Your task to perform on an android device: Open Chrome and go to settings Image 0: 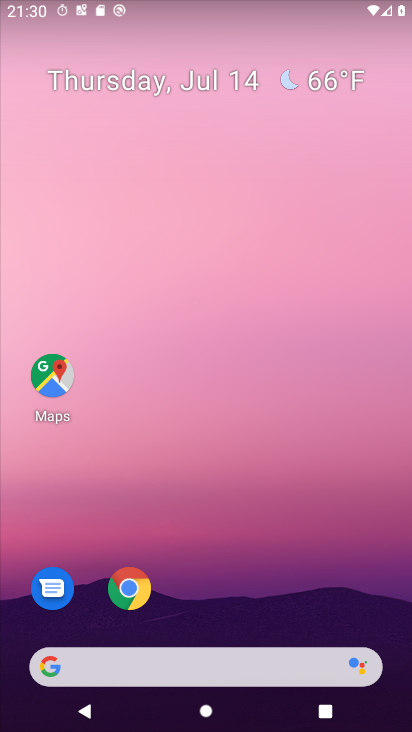
Step 0: drag from (334, 603) to (339, 169)
Your task to perform on an android device: Open Chrome and go to settings Image 1: 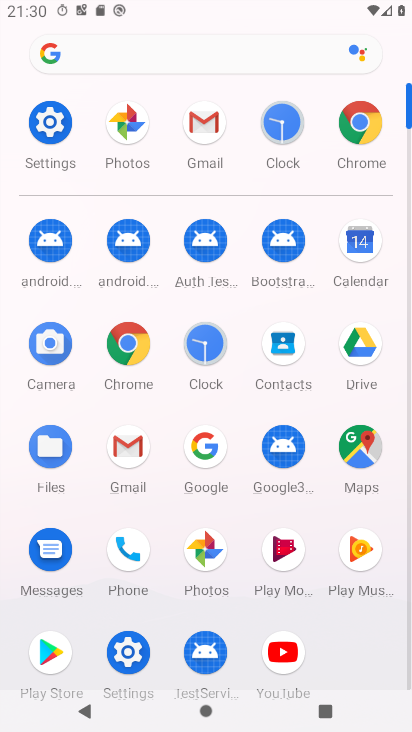
Step 1: click (365, 130)
Your task to perform on an android device: Open Chrome and go to settings Image 2: 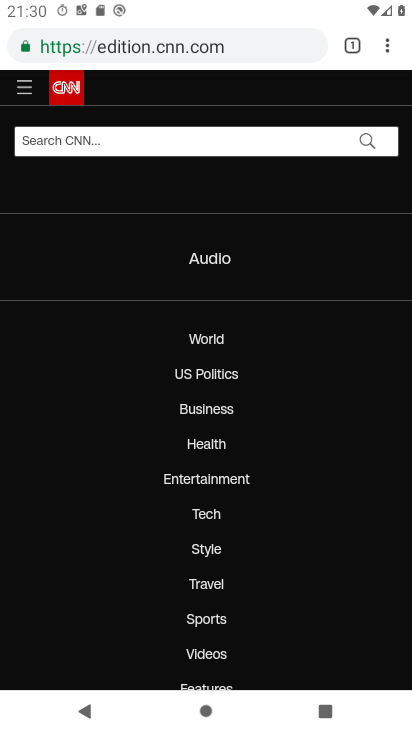
Step 2: click (387, 49)
Your task to perform on an android device: Open Chrome and go to settings Image 3: 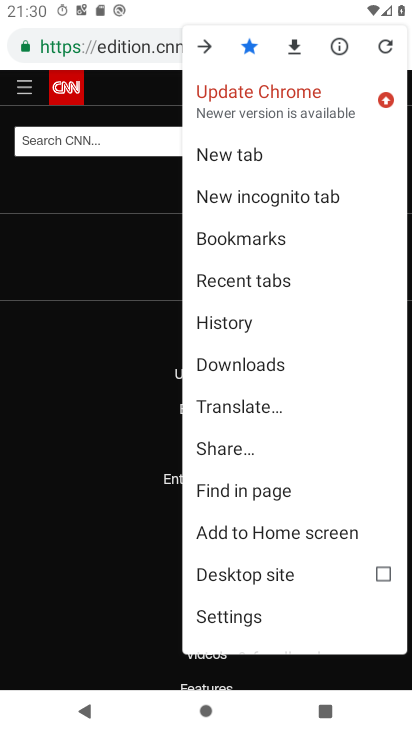
Step 3: drag from (370, 395) to (367, 289)
Your task to perform on an android device: Open Chrome and go to settings Image 4: 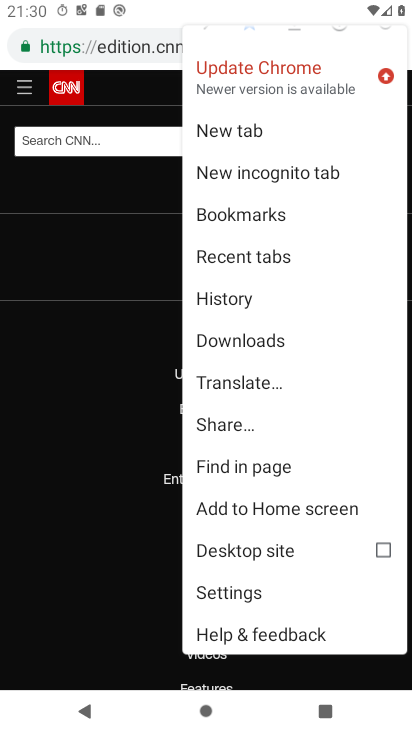
Step 4: click (277, 585)
Your task to perform on an android device: Open Chrome and go to settings Image 5: 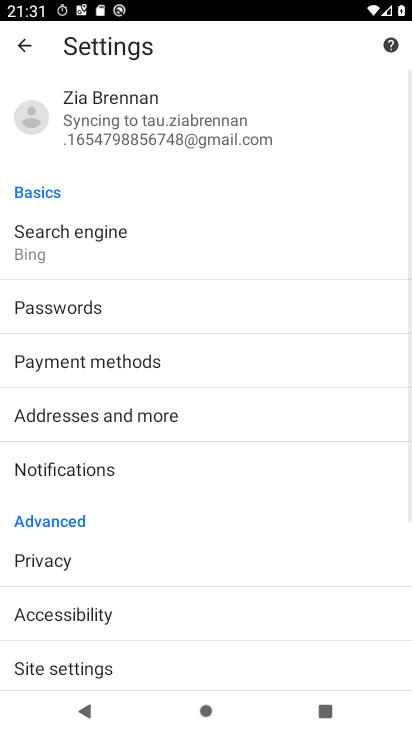
Step 5: task complete